Your task to perform on an android device: open wifi settings Image 0: 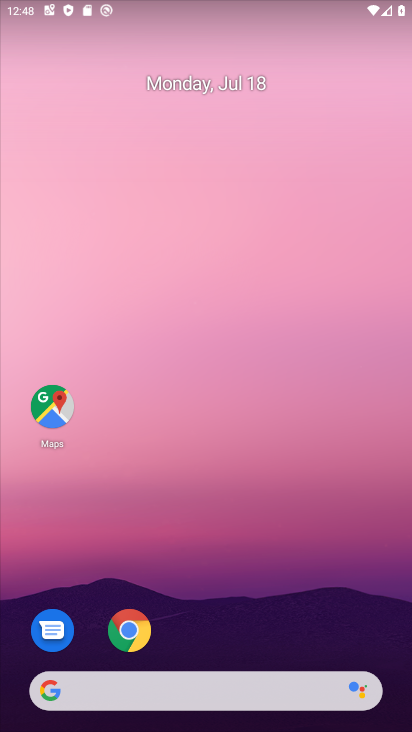
Step 0: drag from (299, 632) to (227, 27)
Your task to perform on an android device: open wifi settings Image 1: 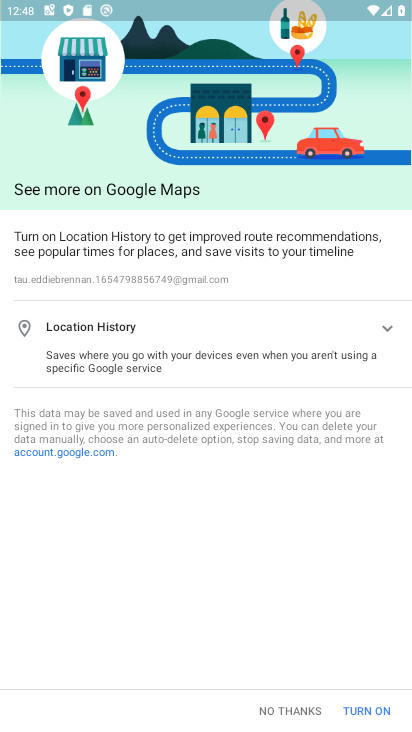
Step 1: press home button
Your task to perform on an android device: open wifi settings Image 2: 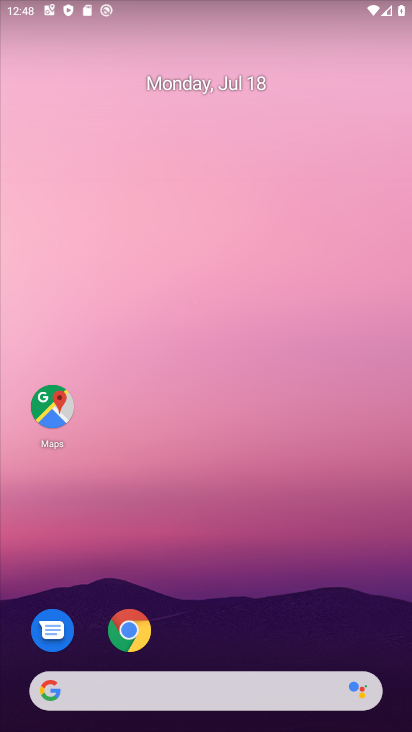
Step 2: drag from (377, 615) to (285, 106)
Your task to perform on an android device: open wifi settings Image 3: 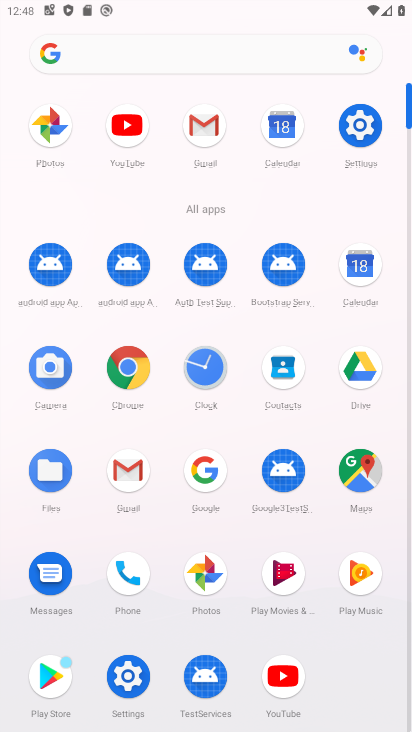
Step 3: click (356, 132)
Your task to perform on an android device: open wifi settings Image 4: 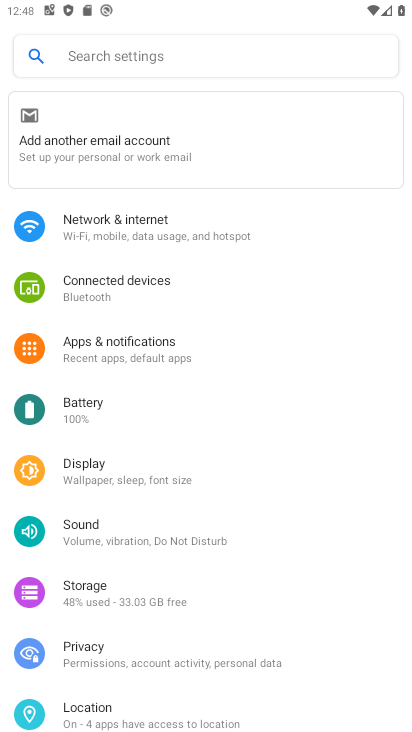
Step 4: click (248, 221)
Your task to perform on an android device: open wifi settings Image 5: 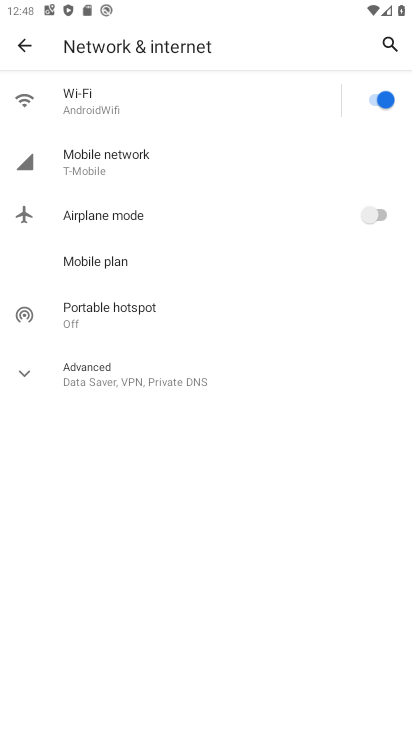
Step 5: click (171, 91)
Your task to perform on an android device: open wifi settings Image 6: 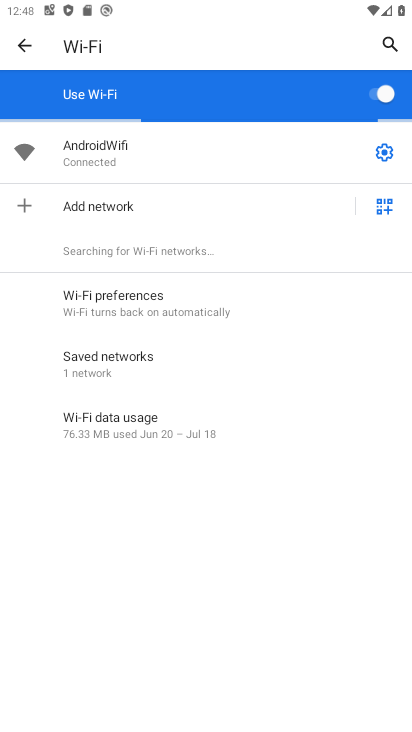
Step 6: task complete